Your task to perform on an android device: all mails in gmail Image 0: 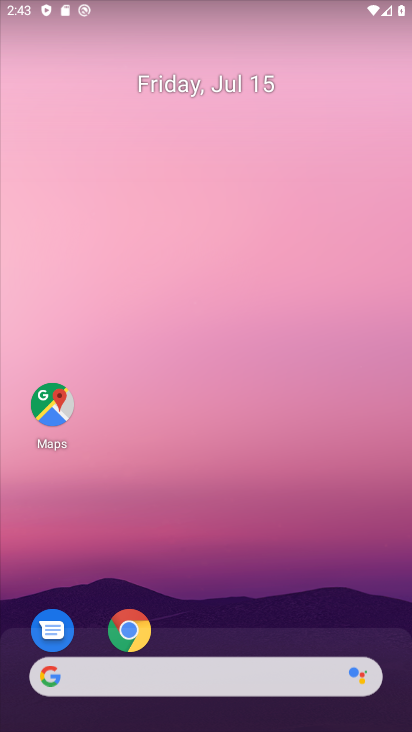
Step 0: drag from (265, 653) to (181, 15)
Your task to perform on an android device: all mails in gmail Image 1: 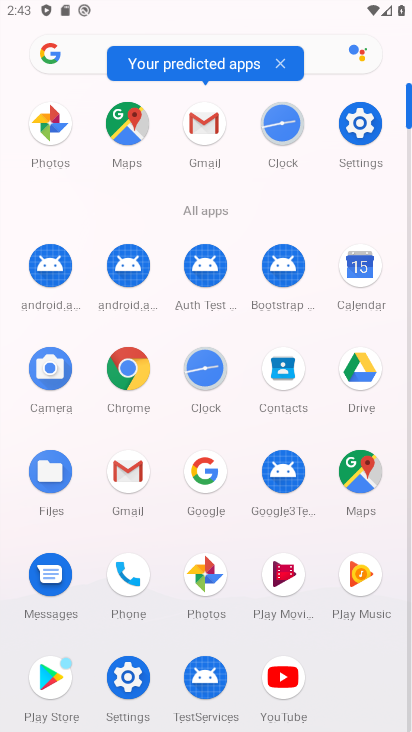
Step 1: click (141, 476)
Your task to perform on an android device: all mails in gmail Image 2: 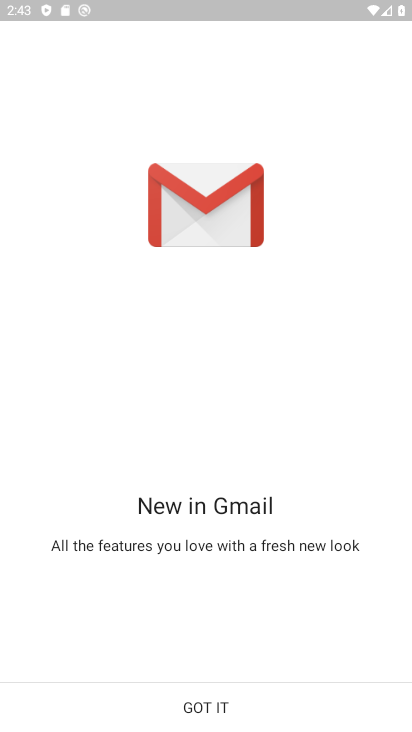
Step 2: click (252, 707)
Your task to perform on an android device: all mails in gmail Image 3: 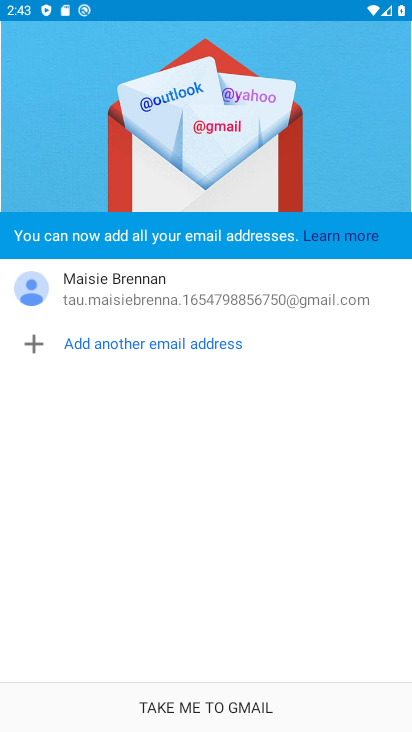
Step 3: click (170, 697)
Your task to perform on an android device: all mails in gmail Image 4: 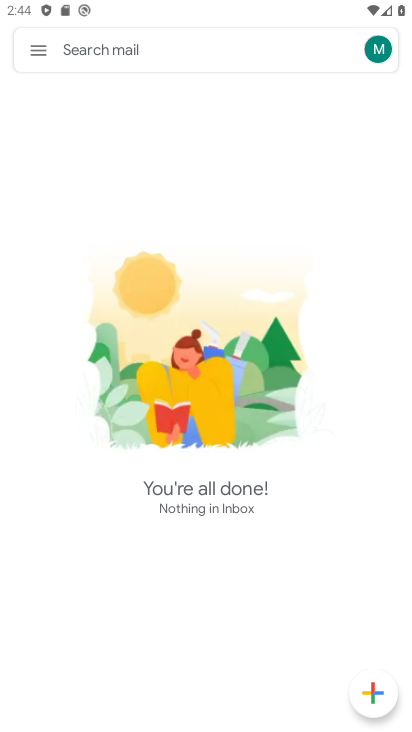
Step 4: click (32, 52)
Your task to perform on an android device: all mails in gmail Image 5: 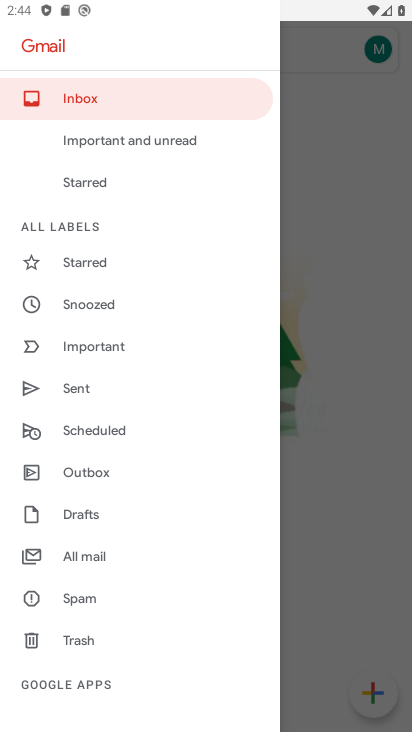
Step 5: click (103, 560)
Your task to perform on an android device: all mails in gmail Image 6: 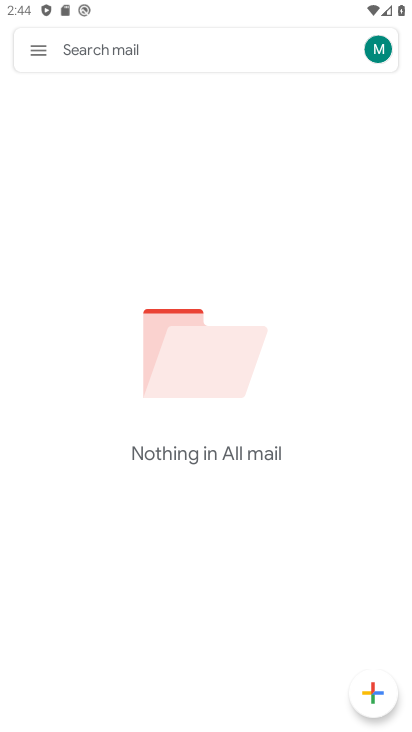
Step 6: task complete